Your task to perform on an android device: Open calendar and show me the first week of next month Image 0: 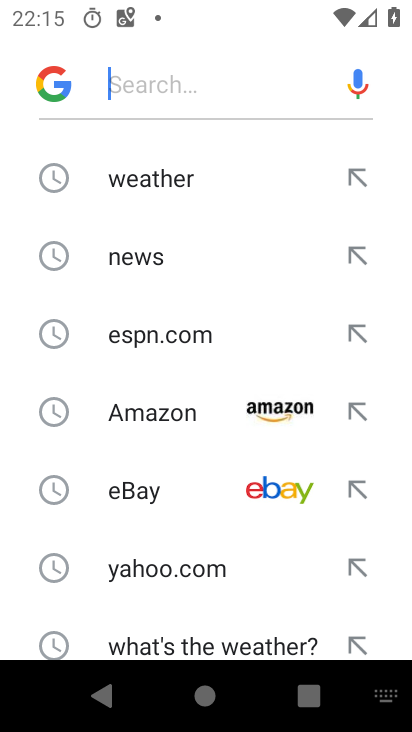
Step 0: press home button
Your task to perform on an android device: Open calendar and show me the first week of next month Image 1: 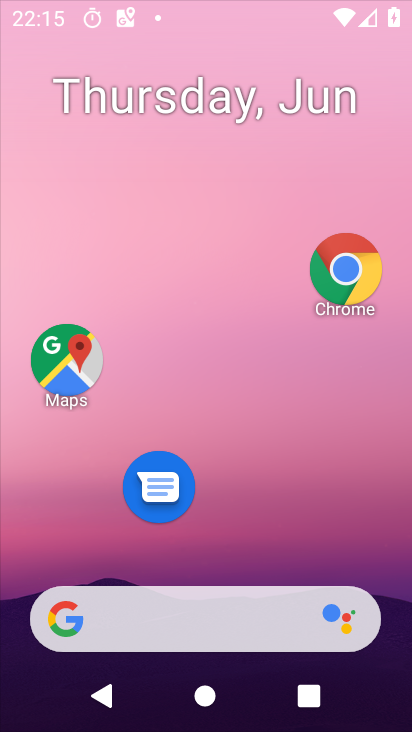
Step 1: drag from (216, 443) to (303, 66)
Your task to perform on an android device: Open calendar and show me the first week of next month Image 2: 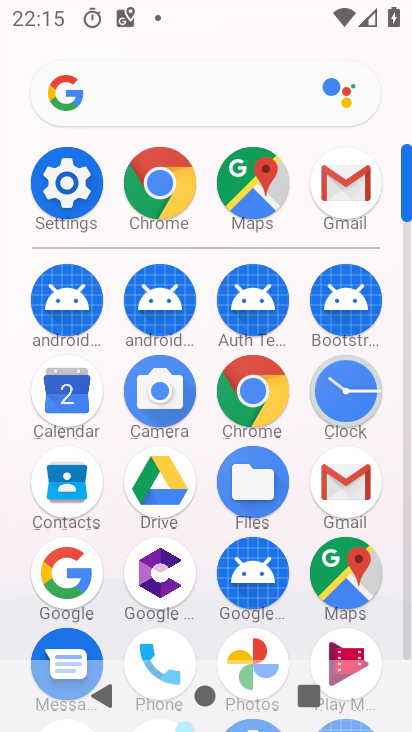
Step 2: click (55, 370)
Your task to perform on an android device: Open calendar and show me the first week of next month Image 3: 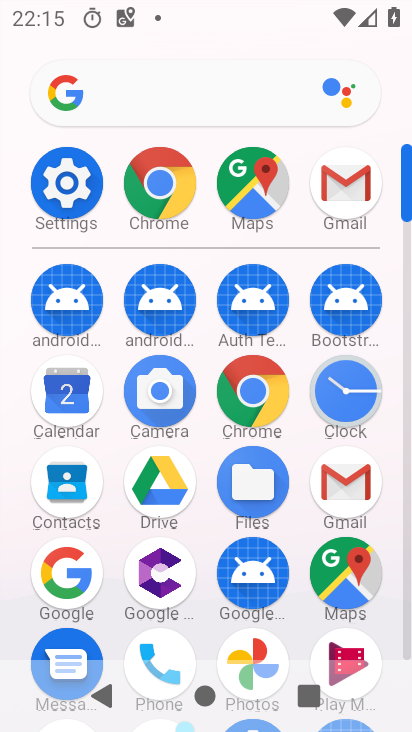
Step 3: click (55, 370)
Your task to perform on an android device: Open calendar and show me the first week of next month Image 4: 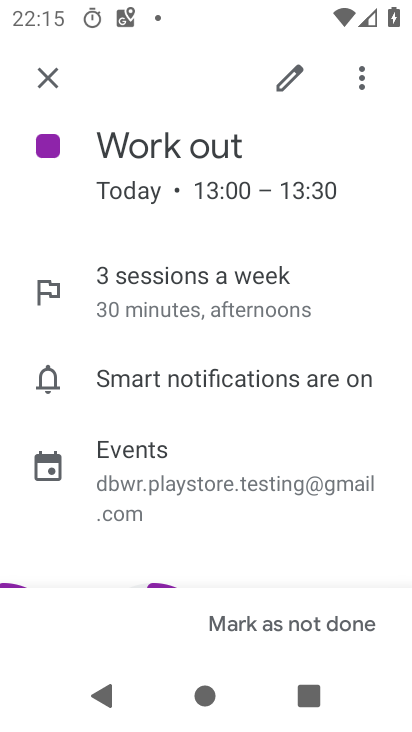
Step 4: click (50, 76)
Your task to perform on an android device: Open calendar and show me the first week of next month Image 5: 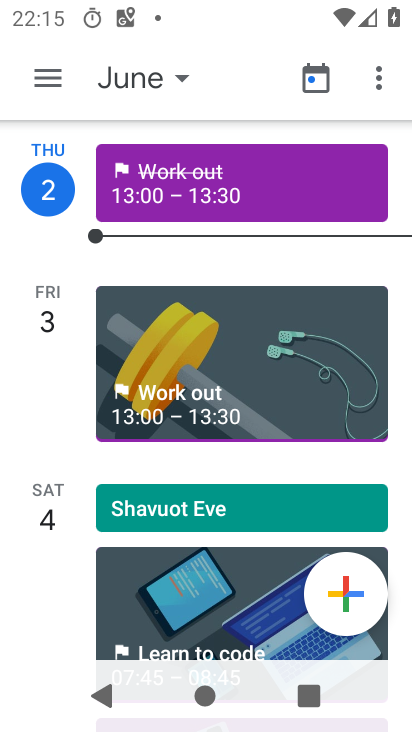
Step 5: click (143, 76)
Your task to perform on an android device: Open calendar and show me the first week of next month Image 6: 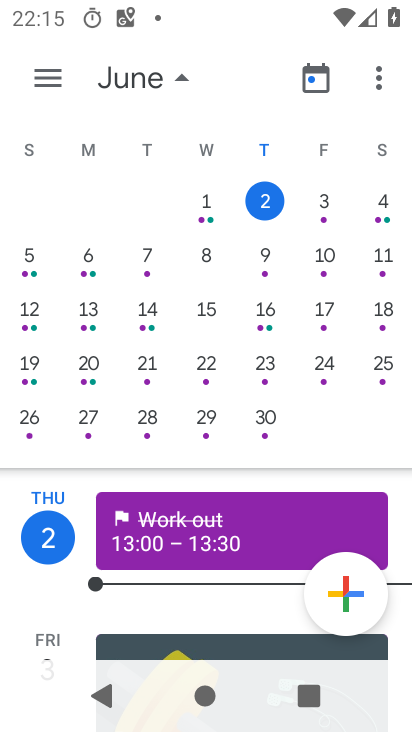
Step 6: drag from (341, 273) to (23, 290)
Your task to perform on an android device: Open calendar and show me the first week of next month Image 7: 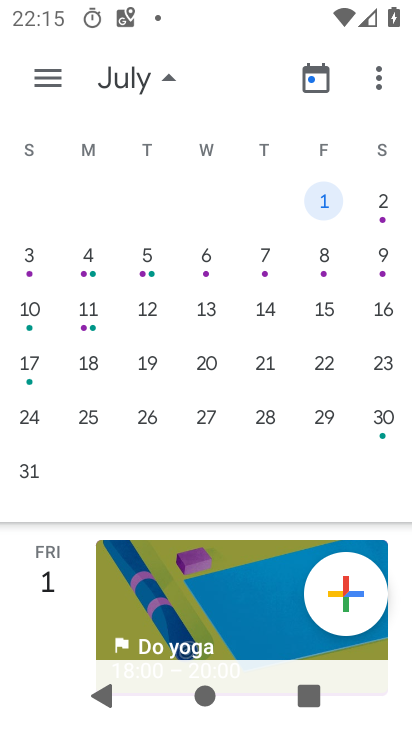
Step 7: click (376, 202)
Your task to perform on an android device: Open calendar and show me the first week of next month Image 8: 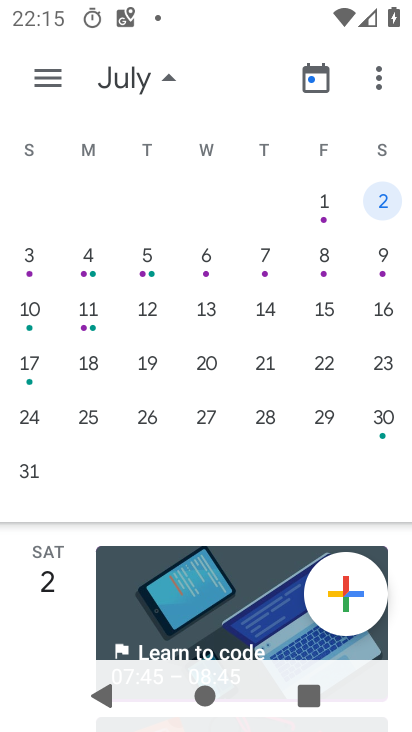
Step 8: task complete